Your task to perform on an android device: turn pop-ups off in chrome Image 0: 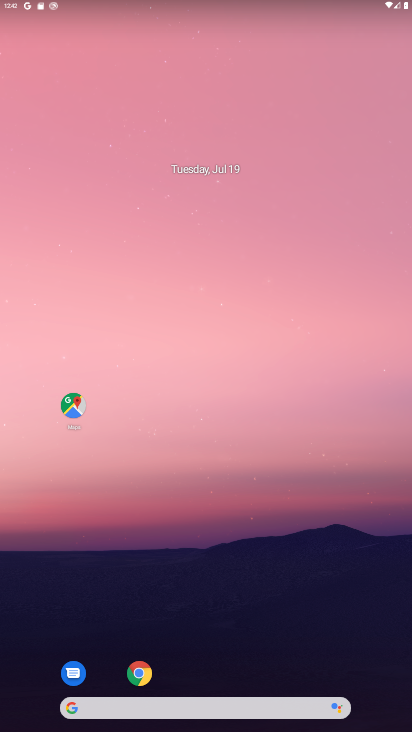
Step 0: click (148, 676)
Your task to perform on an android device: turn pop-ups off in chrome Image 1: 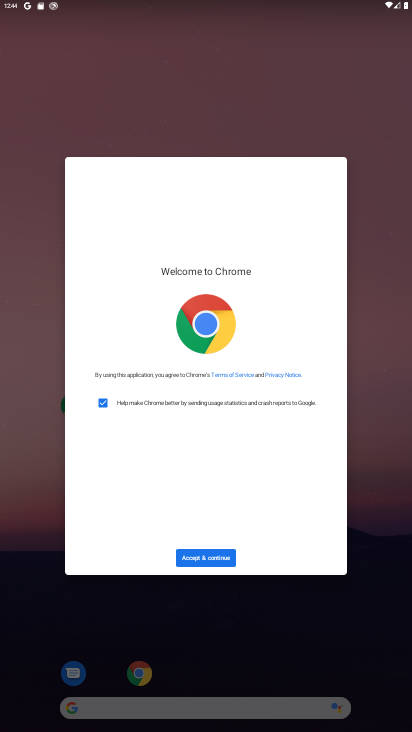
Step 1: click (210, 560)
Your task to perform on an android device: turn pop-ups off in chrome Image 2: 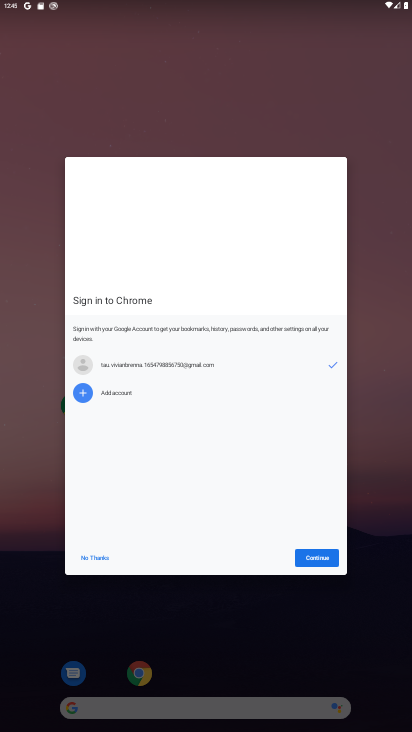
Step 2: click (332, 552)
Your task to perform on an android device: turn pop-ups off in chrome Image 3: 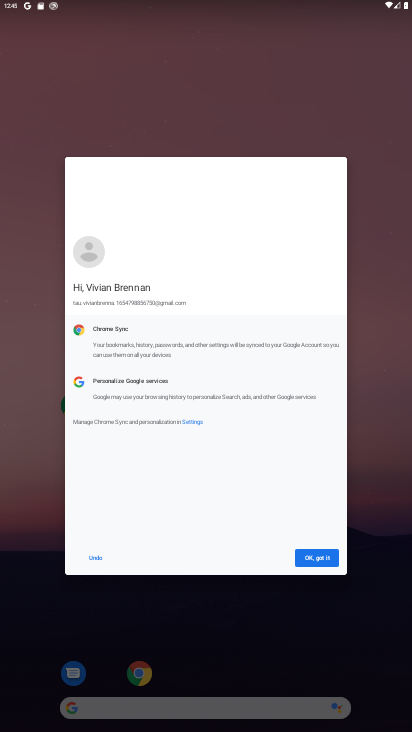
Step 3: click (326, 555)
Your task to perform on an android device: turn pop-ups off in chrome Image 4: 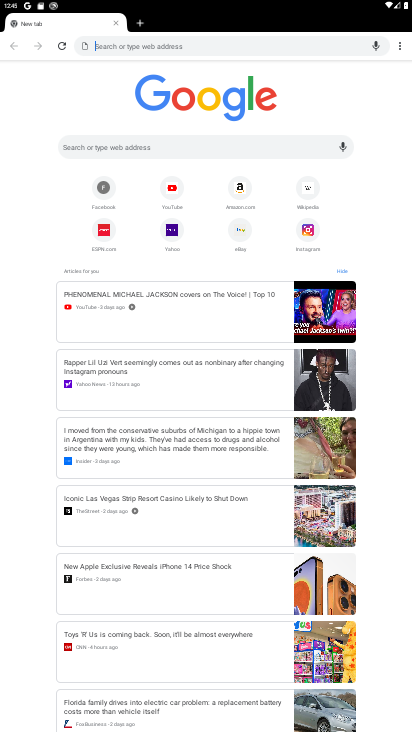
Step 4: click (401, 47)
Your task to perform on an android device: turn pop-ups off in chrome Image 5: 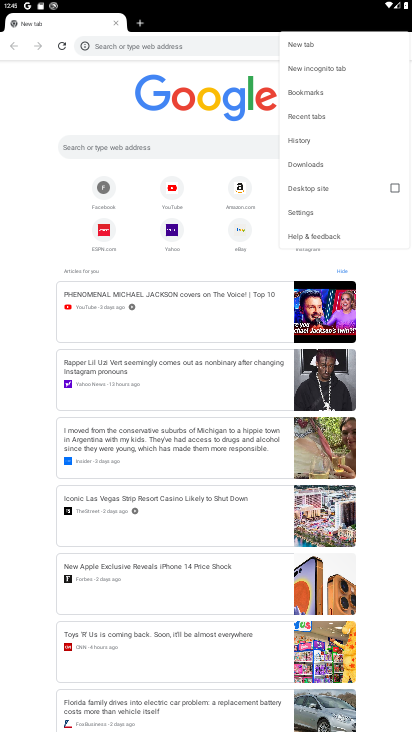
Step 5: click (304, 209)
Your task to perform on an android device: turn pop-ups off in chrome Image 6: 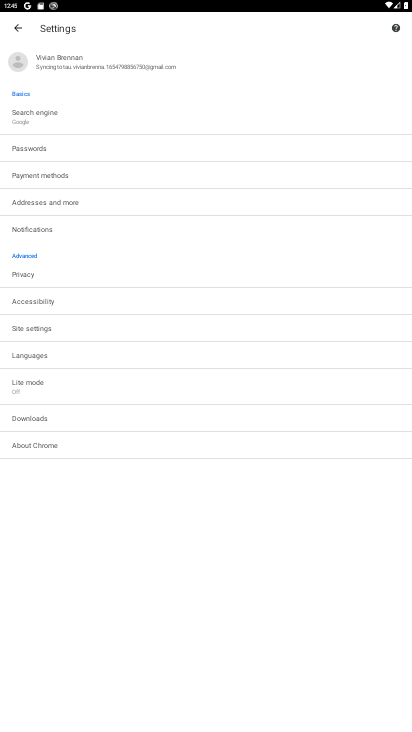
Step 6: click (46, 328)
Your task to perform on an android device: turn pop-ups off in chrome Image 7: 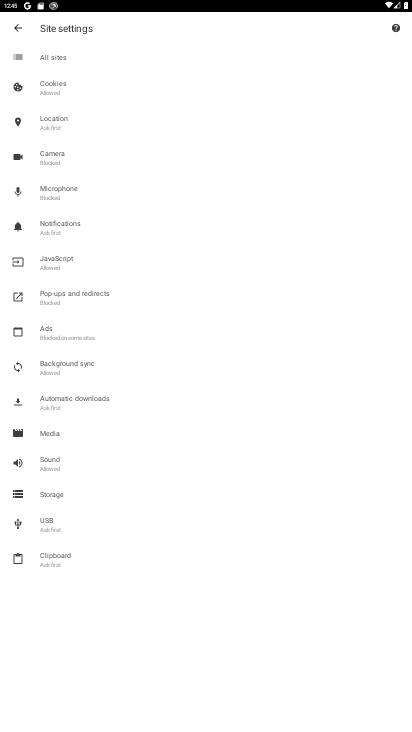
Step 7: click (78, 291)
Your task to perform on an android device: turn pop-ups off in chrome Image 8: 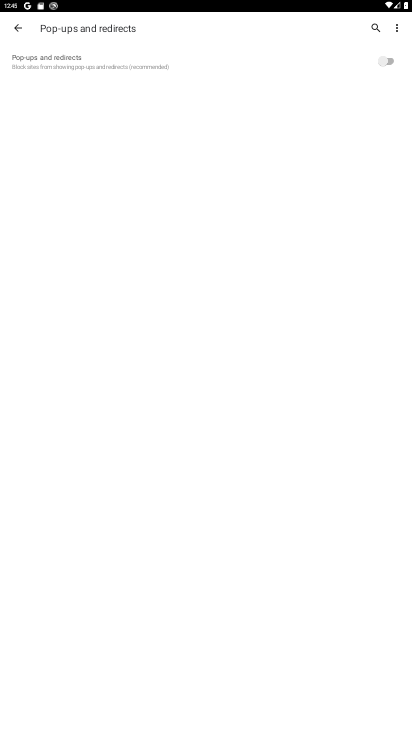
Step 8: task complete